Your task to perform on an android device: Open internet settings Image 0: 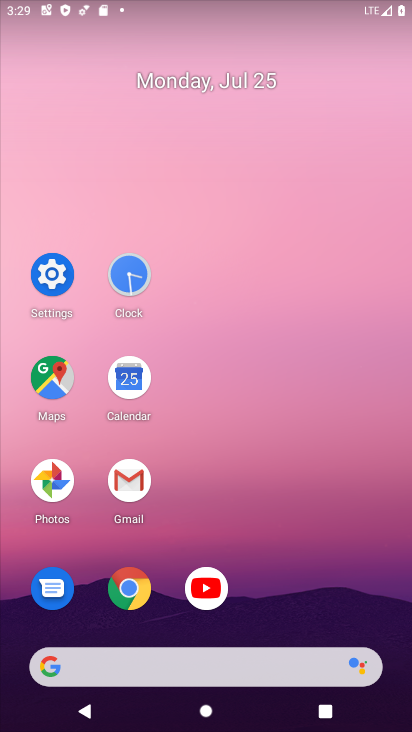
Step 0: click (56, 274)
Your task to perform on an android device: Open internet settings Image 1: 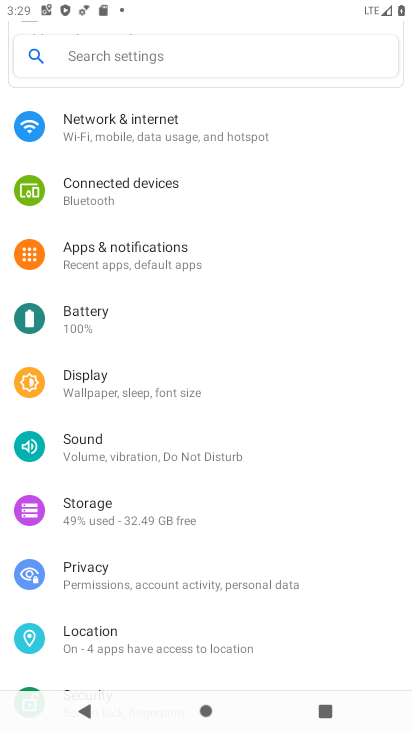
Step 1: click (128, 121)
Your task to perform on an android device: Open internet settings Image 2: 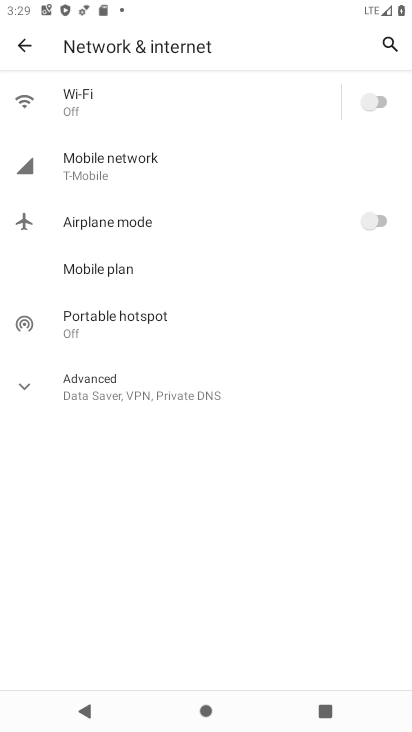
Step 2: click (114, 154)
Your task to perform on an android device: Open internet settings Image 3: 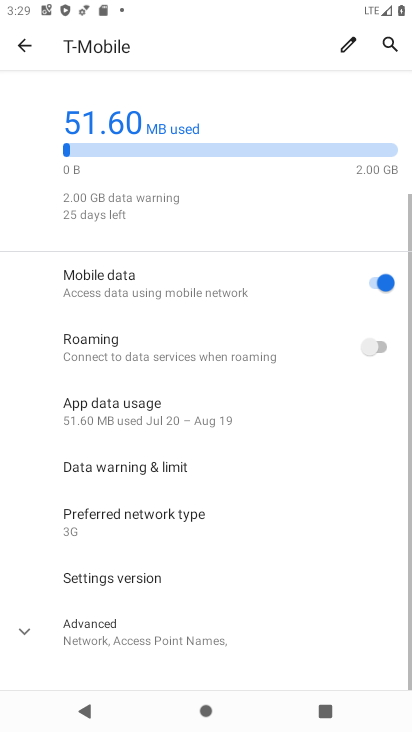
Step 3: task complete